Your task to perform on an android device: Search for Mexican restaurants on Maps Image 0: 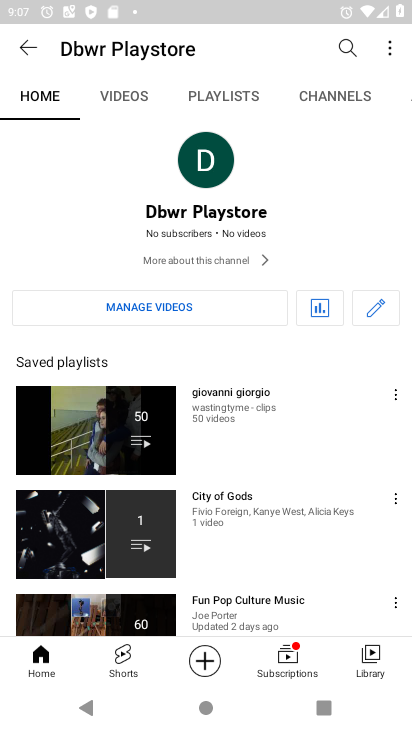
Step 0: press home button
Your task to perform on an android device: Search for Mexican restaurants on Maps Image 1: 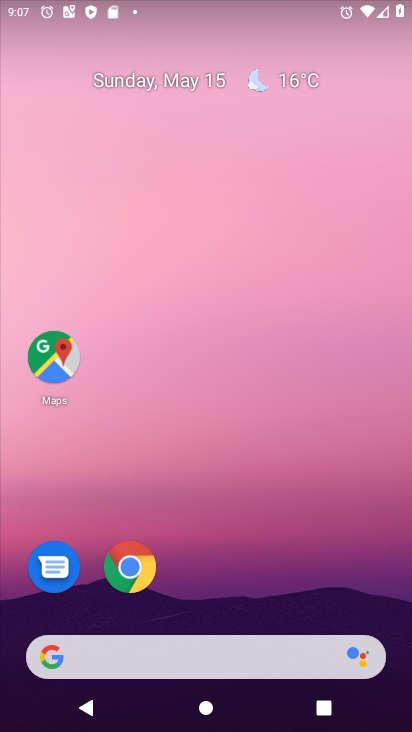
Step 1: drag from (207, 652) to (364, 105)
Your task to perform on an android device: Search for Mexican restaurants on Maps Image 2: 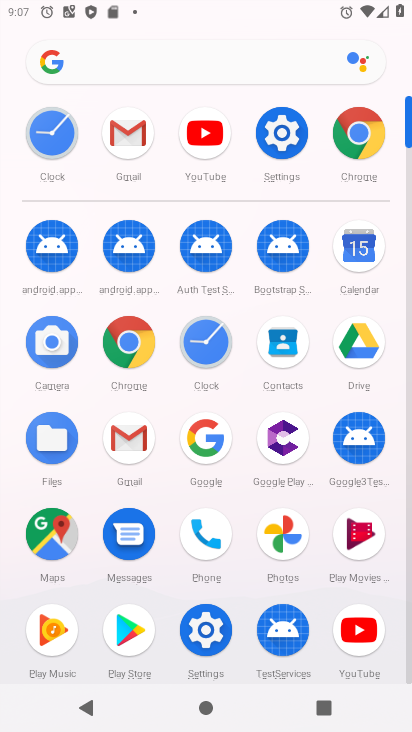
Step 2: click (63, 530)
Your task to perform on an android device: Search for Mexican restaurants on Maps Image 3: 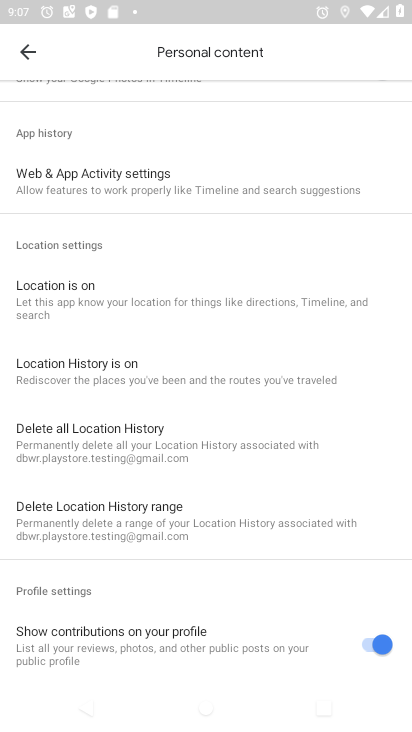
Step 3: click (40, 50)
Your task to perform on an android device: Search for Mexican restaurants on Maps Image 4: 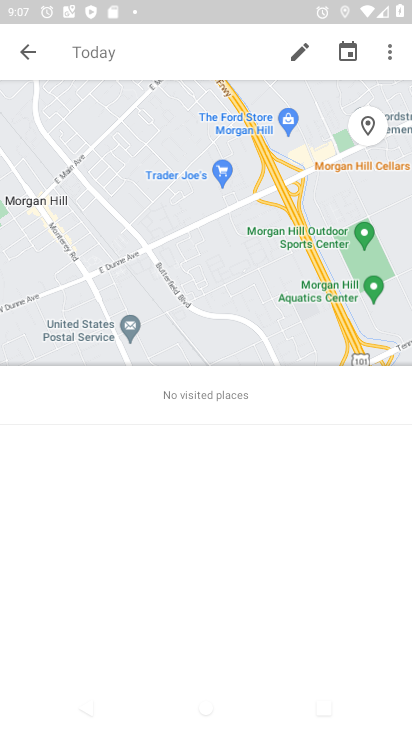
Step 4: click (40, 50)
Your task to perform on an android device: Search for Mexican restaurants on Maps Image 5: 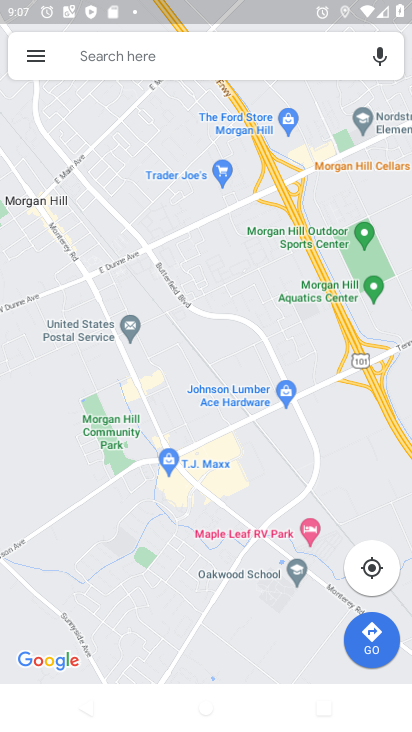
Step 5: click (149, 65)
Your task to perform on an android device: Search for Mexican restaurants on Maps Image 6: 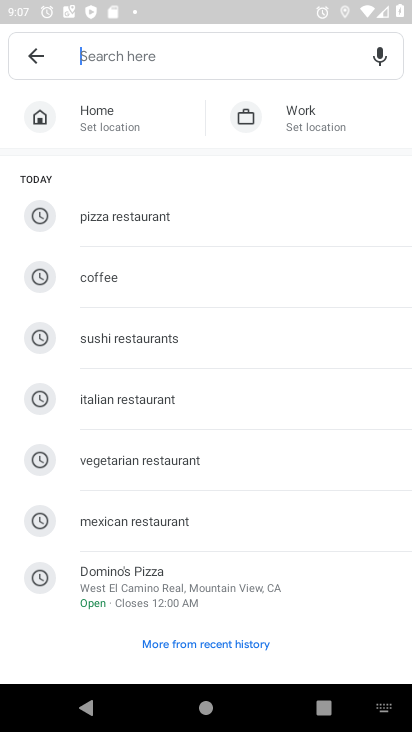
Step 6: click (110, 508)
Your task to perform on an android device: Search for Mexican restaurants on Maps Image 7: 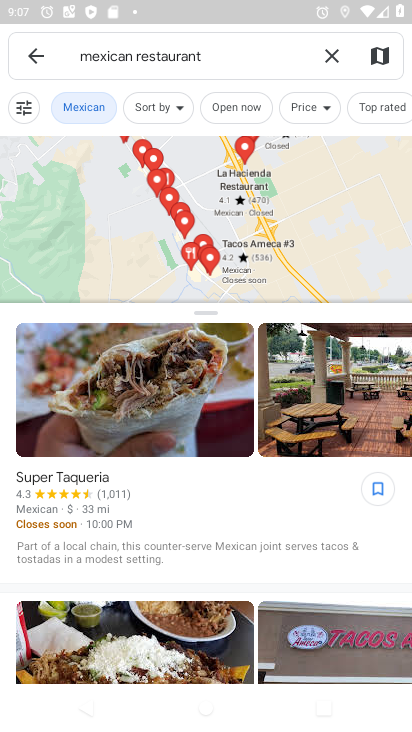
Step 7: task complete